Your task to perform on an android device: Open Reddit.com Image 0: 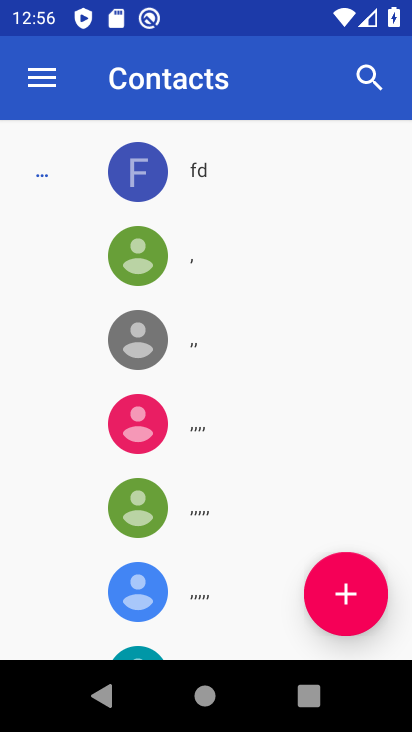
Step 0: press home button
Your task to perform on an android device: Open Reddit.com Image 1: 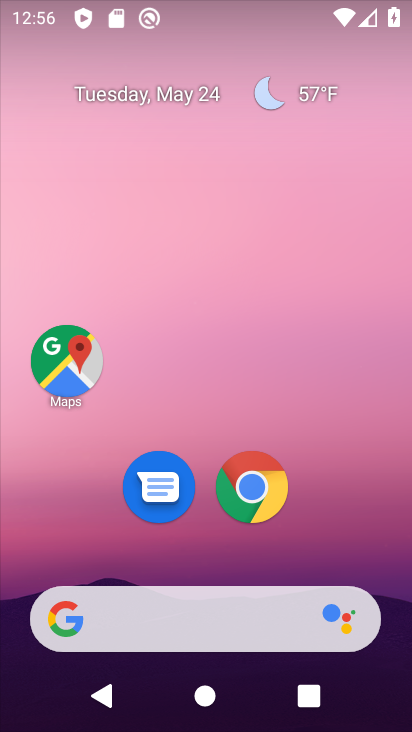
Step 1: click (249, 493)
Your task to perform on an android device: Open Reddit.com Image 2: 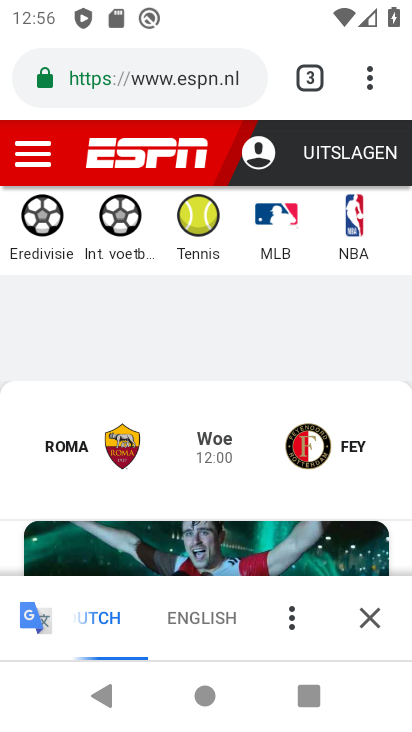
Step 2: click (369, 84)
Your task to perform on an android device: Open Reddit.com Image 3: 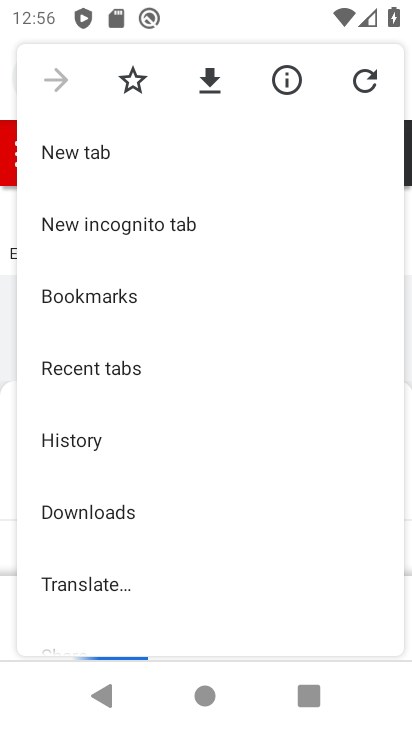
Step 3: click (95, 152)
Your task to perform on an android device: Open Reddit.com Image 4: 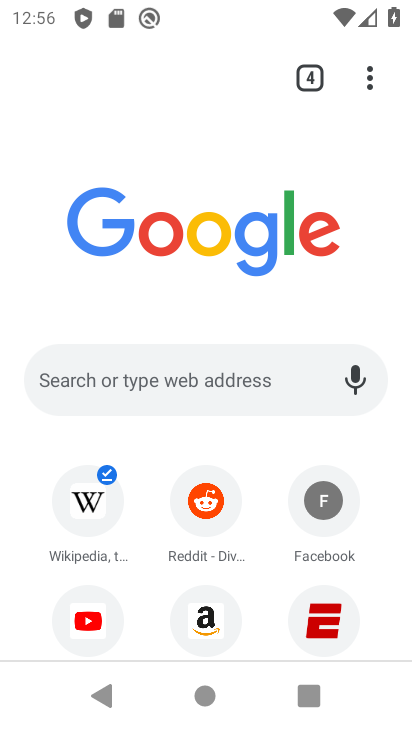
Step 4: click (213, 501)
Your task to perform on an android device: Open Reddit.com Image 5: 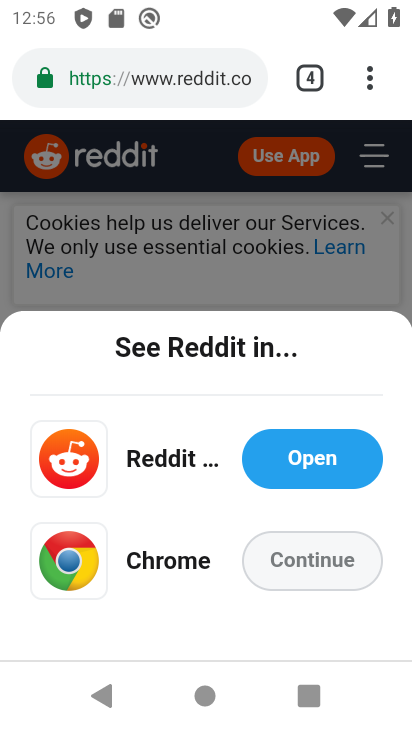
Step 5: task complete